Your task to perform on an android device: turn off notifications settings in the gmail app Image 0: 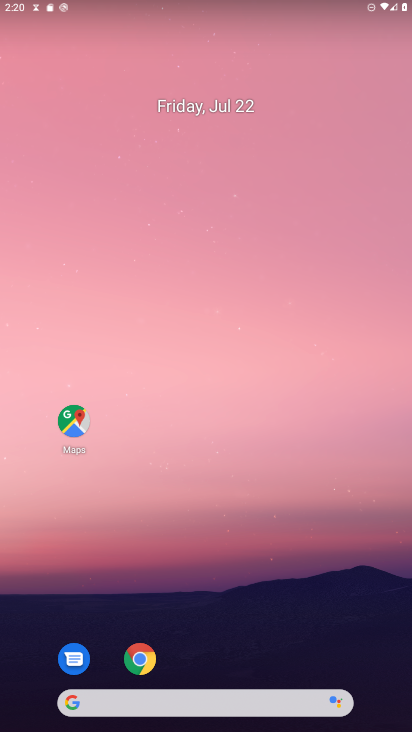
Step 0: drag from (340, 623) to (409, 317)
Your task to perform on an android device: turn off notifications settings in the gmail app Image 1: 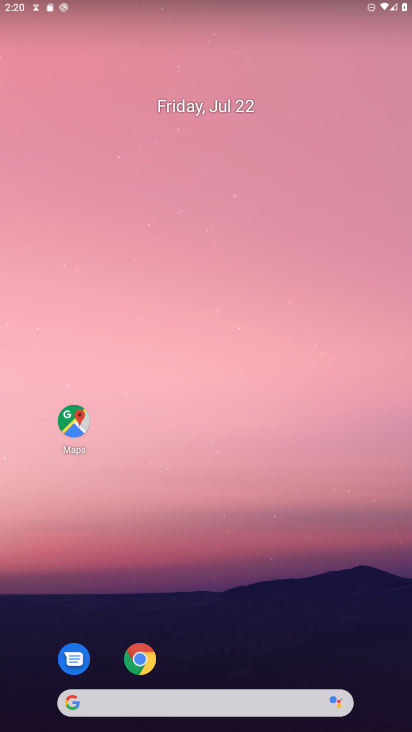
Step 1: drag from (246, 602) to (373, 8)
Your task to perform on an android device: turn off notifications settings in the gmail app Image 2: 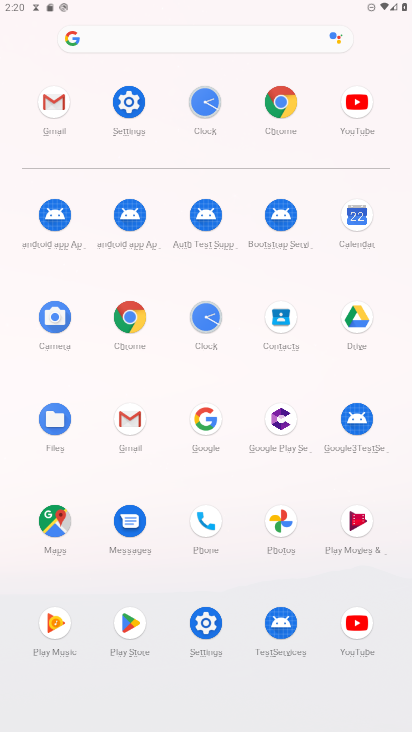
Step 2: click (46, 105)
Your task to perform on an android device: turn off notifications settings in the gmail app Image 3: 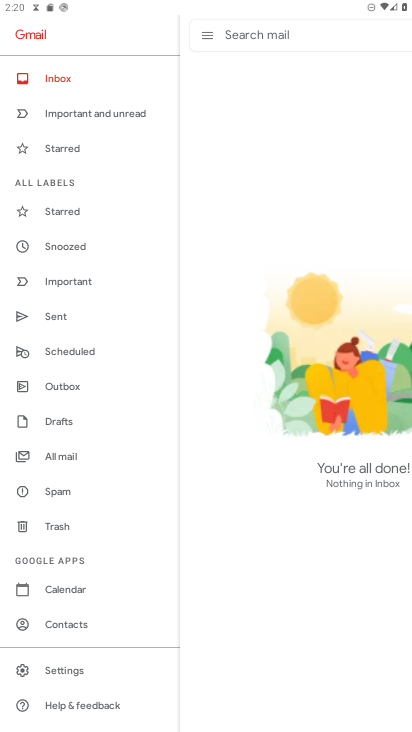
Step 3: click (49, 670)
Your task to perform on an android device: turn off notifications settings in the gmail app Image 4: 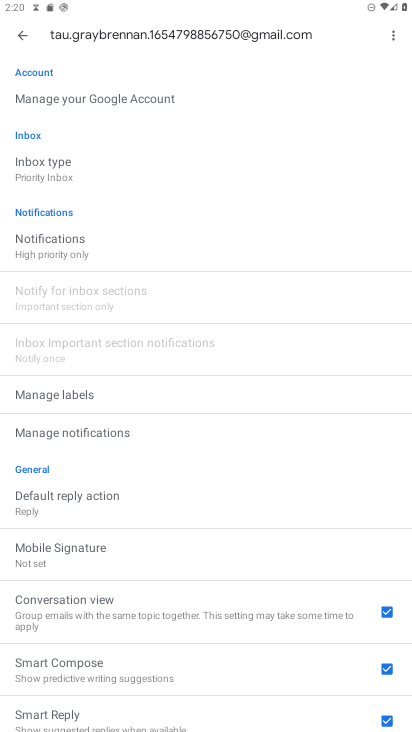
Step 4: click (59, 250)
Your task to perform on an android device: turn off notifications settings in the gmail app Image 5: 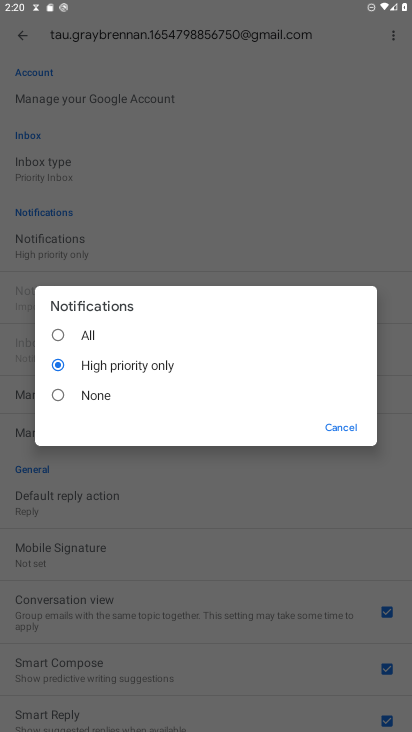
Step 5: click (90, 400)
Your task to perform on an android device: turn off notifications settings in the gmail app Image 6: 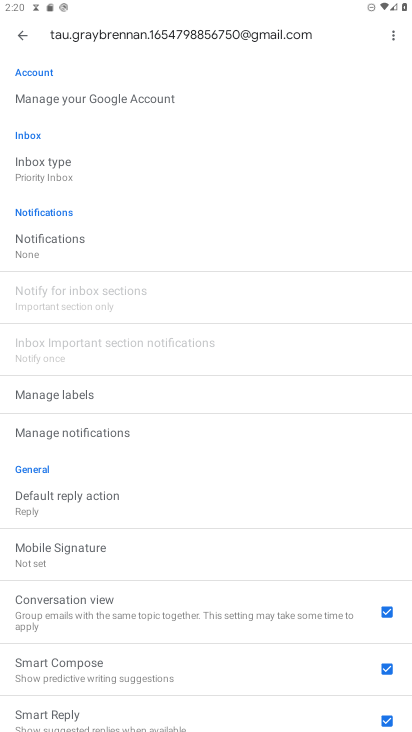
Step 6: task complete